Your task to perform on an android device: change text size in settings app Image 0: 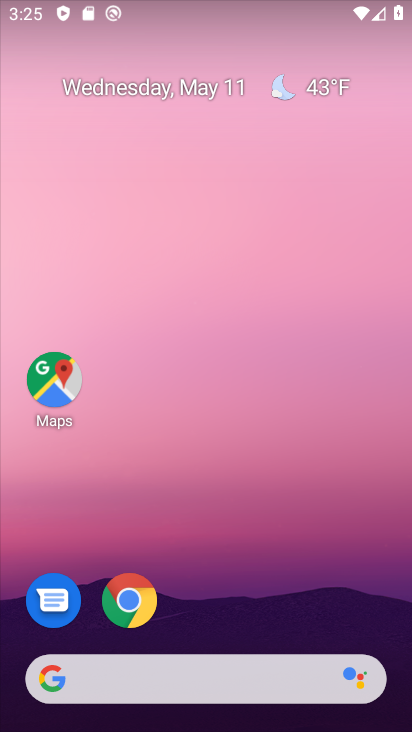
Step 0: drag from (308, 637) to (292, 24)
Your task to perform on an android device: change text size in settings app Image 1: 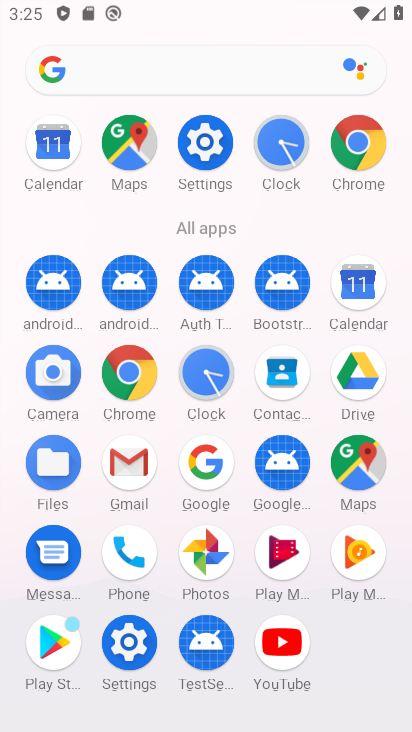
Step 1: click (131, 645)
Your task to perform on an android device: change text size in settings app Image 2: 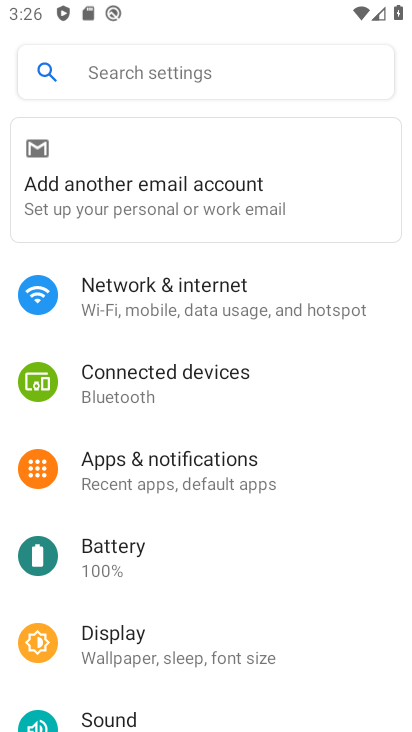
Step 2: click (116, 646)
Your task to perform on an android device: change text size in settings app Image 3: 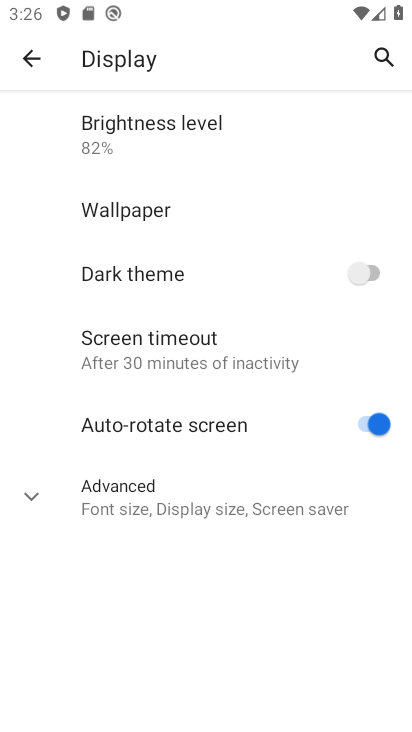
Step 3: click (34, 505)
Your task to perform on an android device: change text size in settings app Image 4: 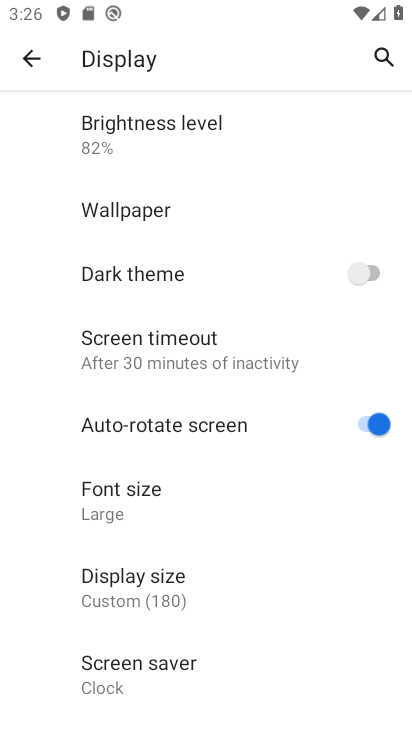
Step 4: click (126, 508)
Your task to perform on an android device: change text size in settings app Image 5: 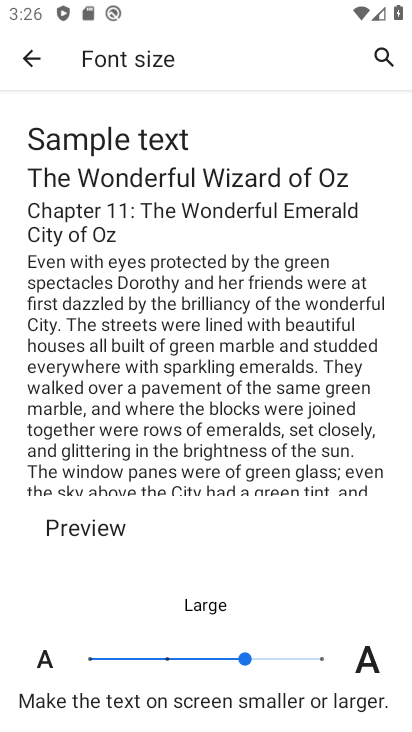
Step 5: click (168, 656)
Your task to perform on an android device: change text size in settings app Image 6: 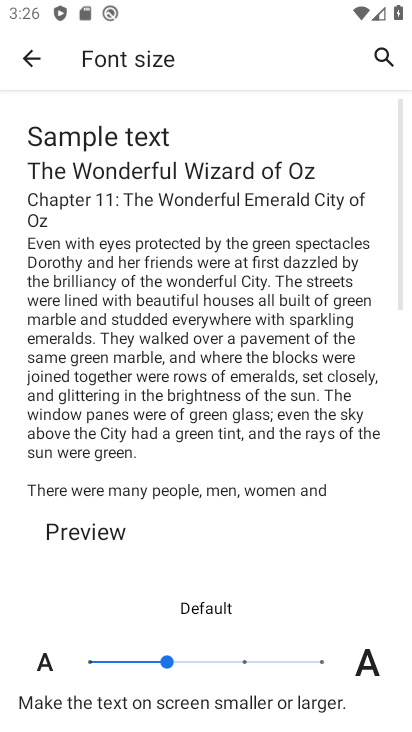
Step 6: task complete